Your task to perform on an android device: toggle translation in the chrome app Image 0: 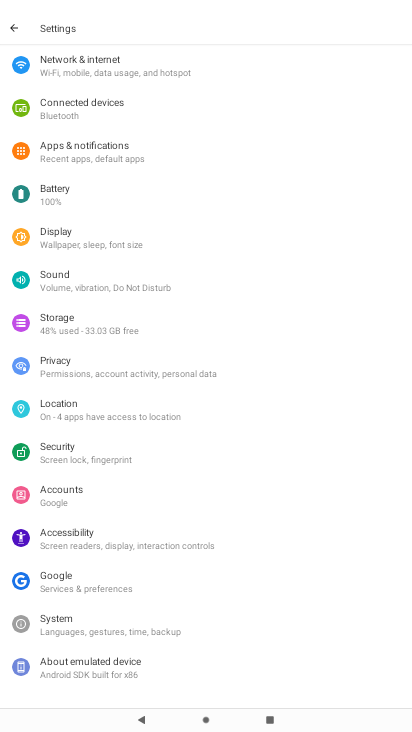
Step 0: press home button
Your task to perform on an android device: toggle translation in the chrome app Image 1: 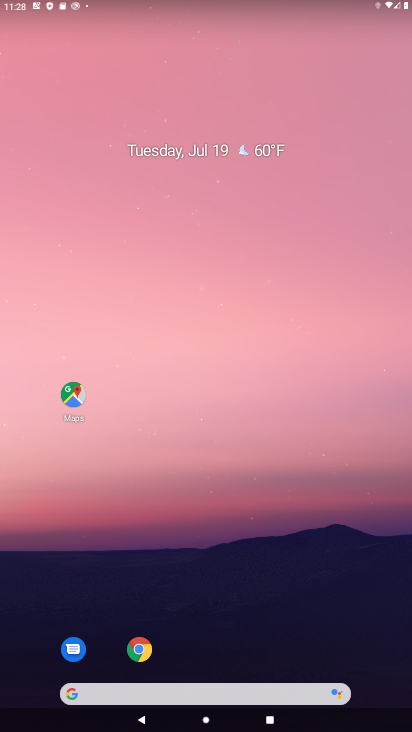
Step 1: click (147, 660)
Your task to perform on an android device: toggle translation in the chrome app Image 2: 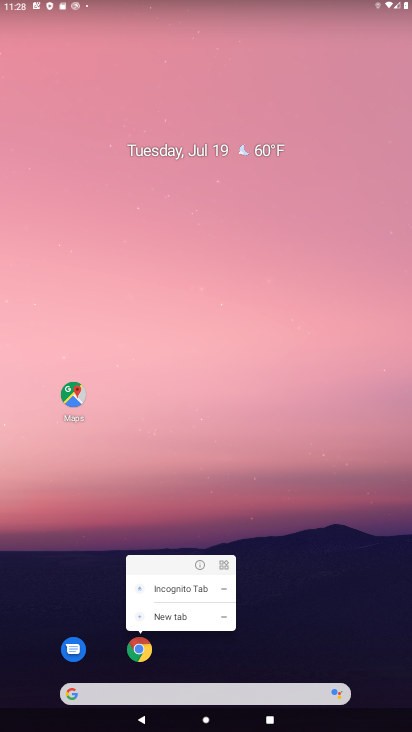
Step 2: click (149, 652)
Your task to perform on an android device: toggle translation in the chrome app Image 3: 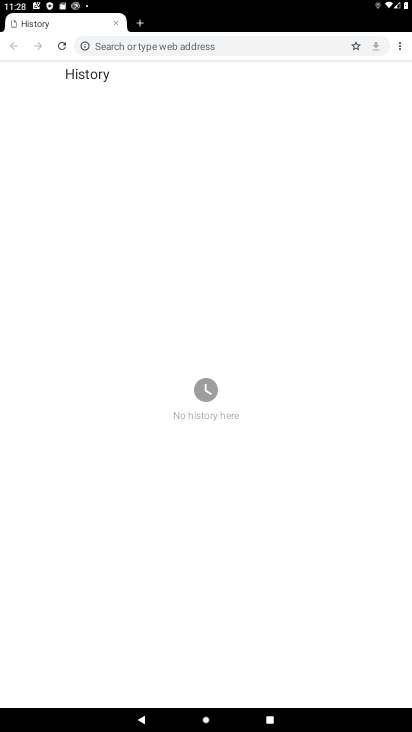
Step 3: drag from (395, 48) to (311, 209)
Your task to perform on an android device: toggle translation in the chrome app Image 4: 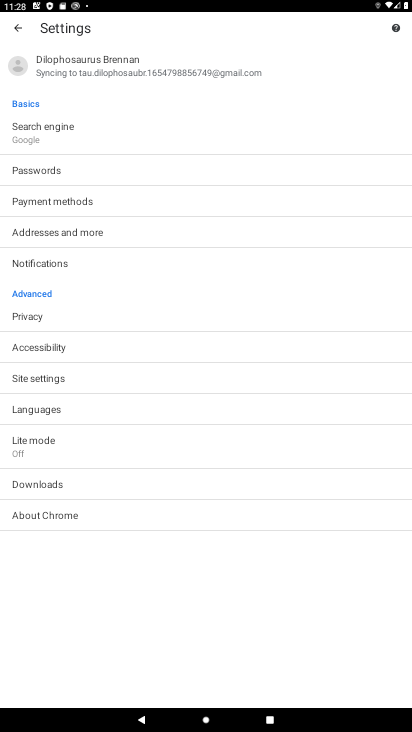
Step 4: click (54, 409)
Your task to perform on an android device: toggle translation in the chrome app Image 5: 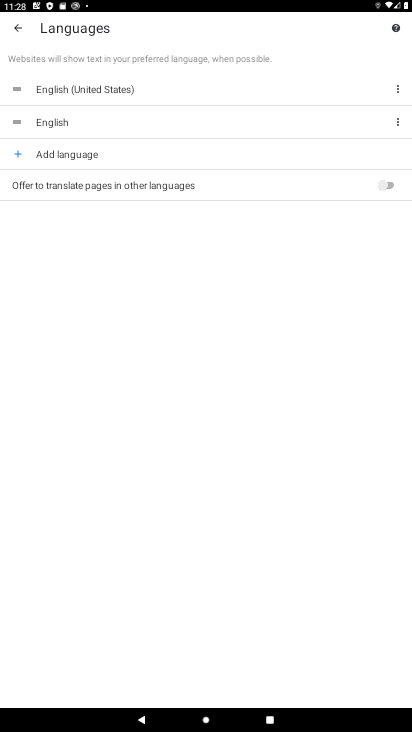
Step 5: click (389, 190)
Your task to perform on an android device: toggle translation in the chrome app Image 6: 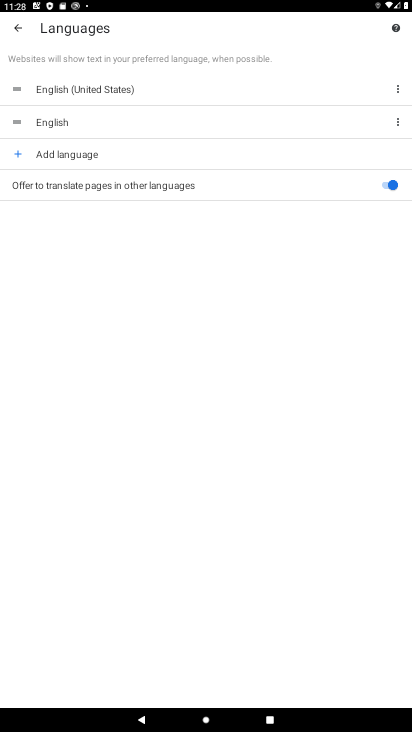
Step 6: task complete